Your task to perform on an android device: Search for the best rated running shoes on Nike.com Image 0: 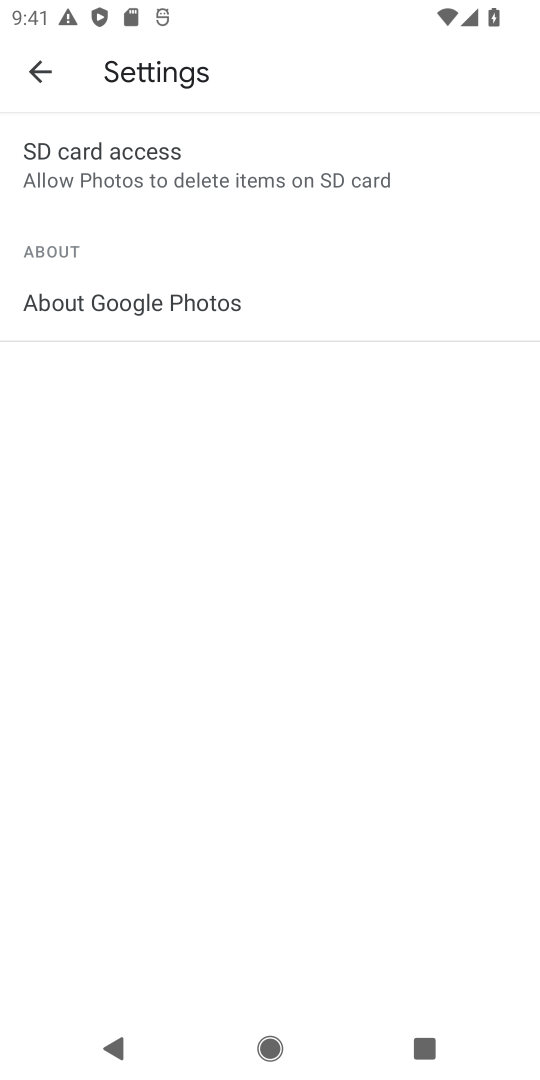
Step 0: press home button
Your task to perform on an android device: Search for the best rated running shoes on Nike.com Image 1: 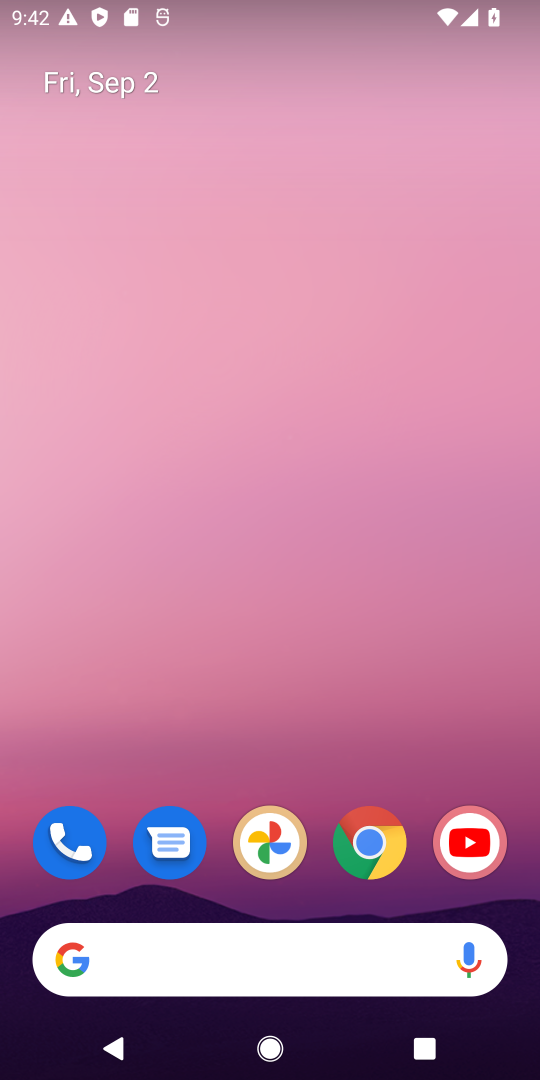
Step 1: drag from (313, 724) to (169, 87)
Your task to perform on an android device: Search for the best rated running shoes on Nike.com Image 2: 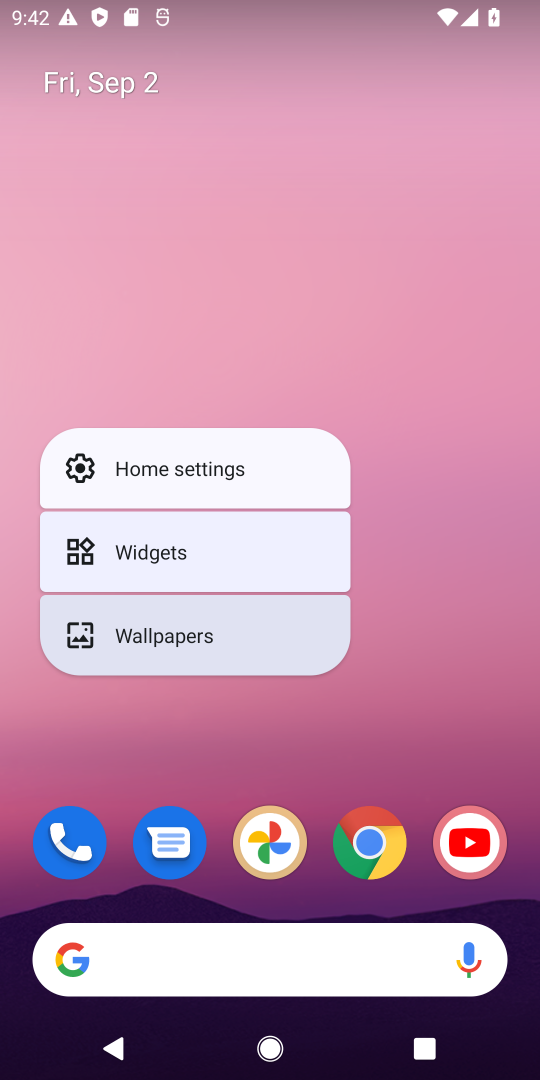
Step 2: click (278, 335)
Your task to perform on an android device: Search for the best rated running shoes on Nike.com Image 3: 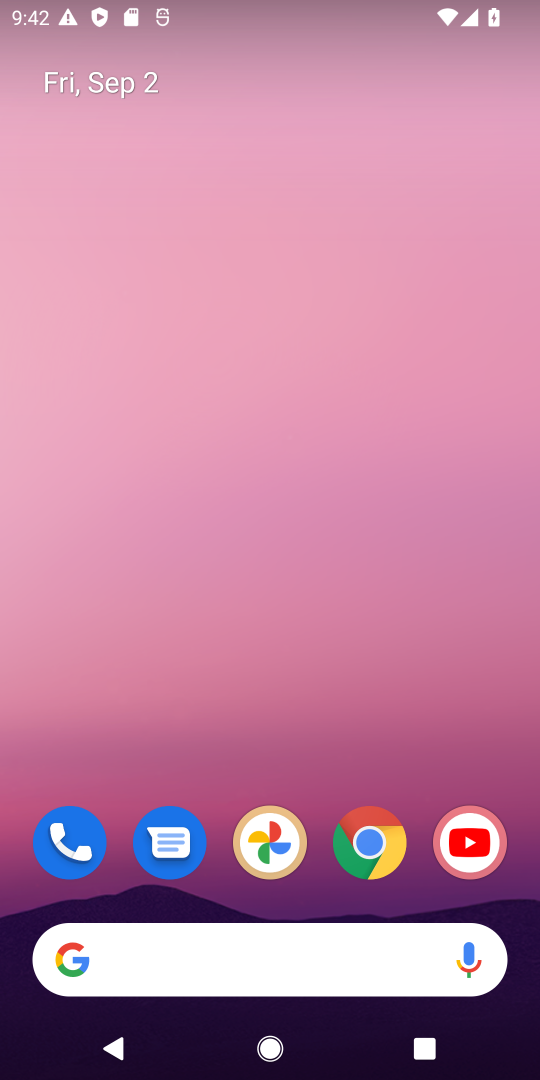
Step 3: drag from (333, 859) to (326, 0)
Your task to perform on an android device: Search for the best rated running shoes on Nike.com Image 4: 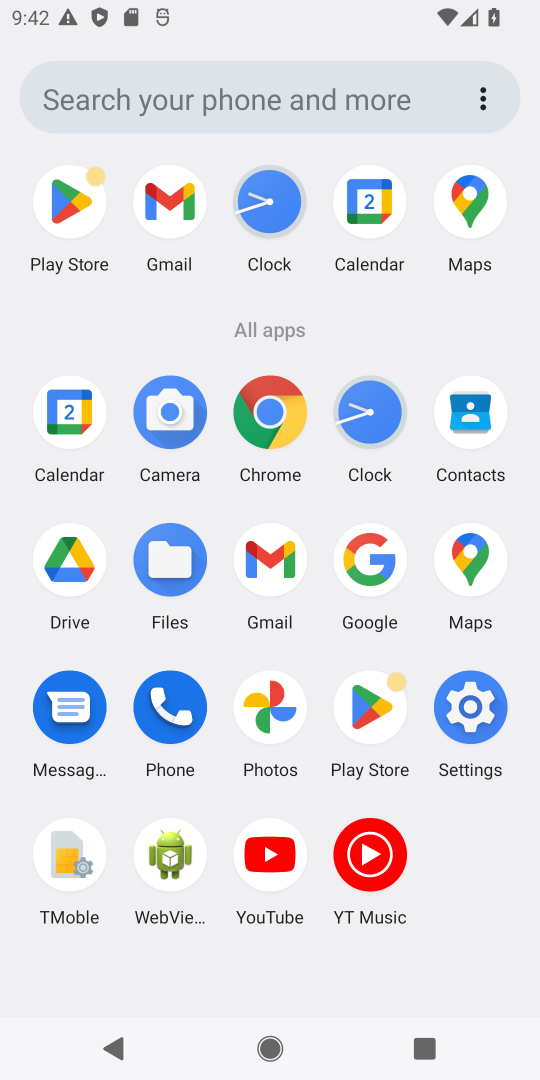
Step 4: click (268, 424)
Your task to perform on an android device: Search for the best rated running shoes on Nike.com Image 5: 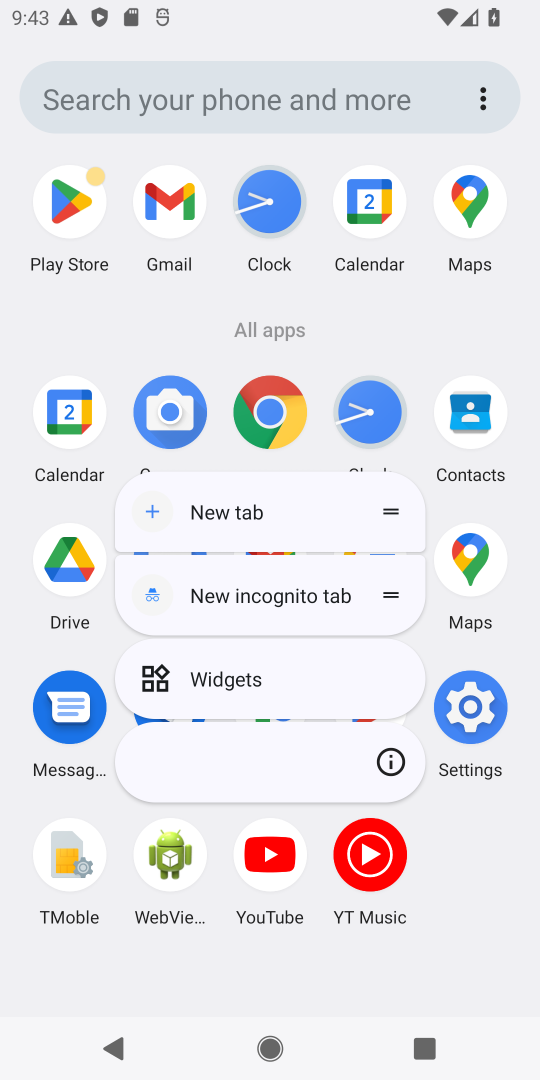
Step 5: click (267, 421)
Your task to perform on an android device: Search for the best rated running shoes on Nike.com Image 6: 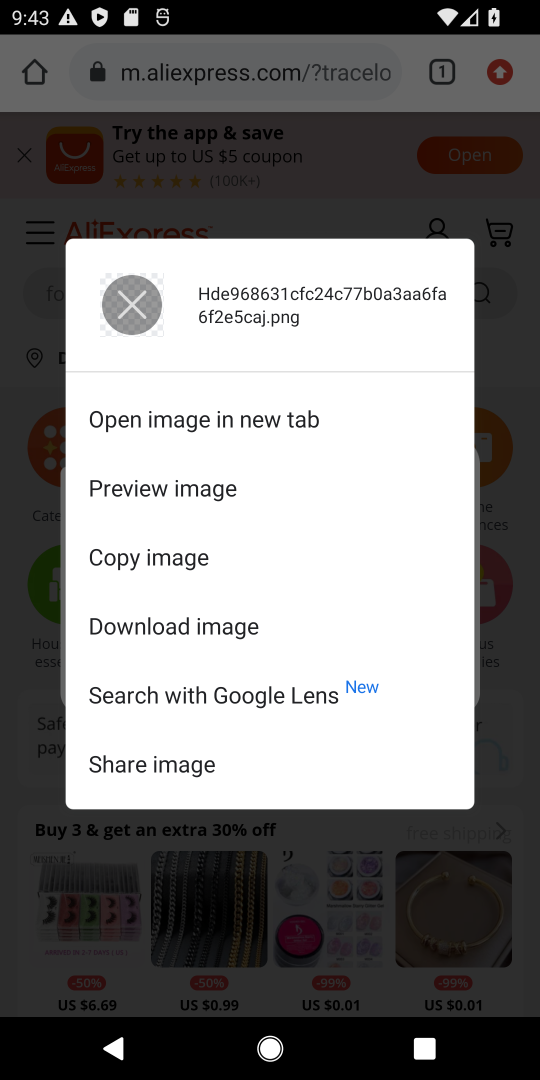
Step 6: click (273, 78)
Your task to perform on an android device: Search for the best rated running shoes on Nike.com Image 7: 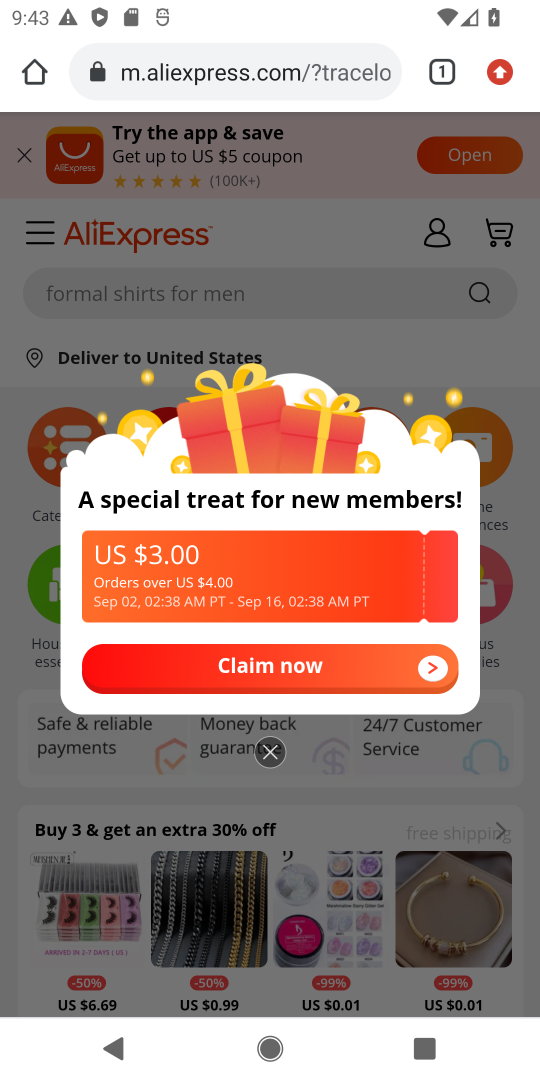
Step 7: click (273, 77)
Your task to perform on an android device: Search for the best rated running shoes on Nike.com Image 8: 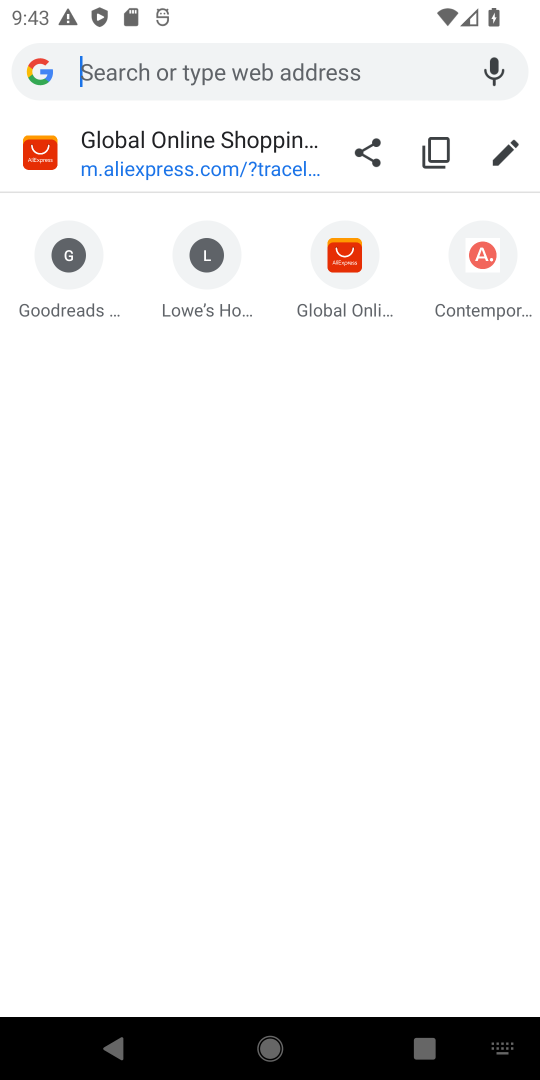
Step 8: type "Nike.com"
Your task to perform on an android device: Search for the best rated running shoes on Nike.com Image 9: 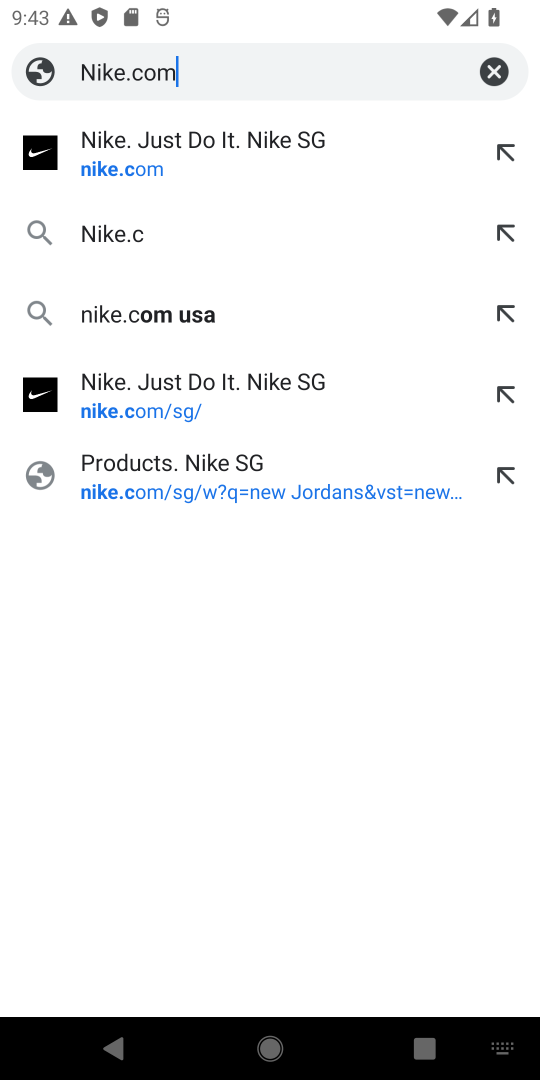
Step 9: press enter
Your task to perform on an android device: Search for the best rated running shoes on Nike.com Image 10: 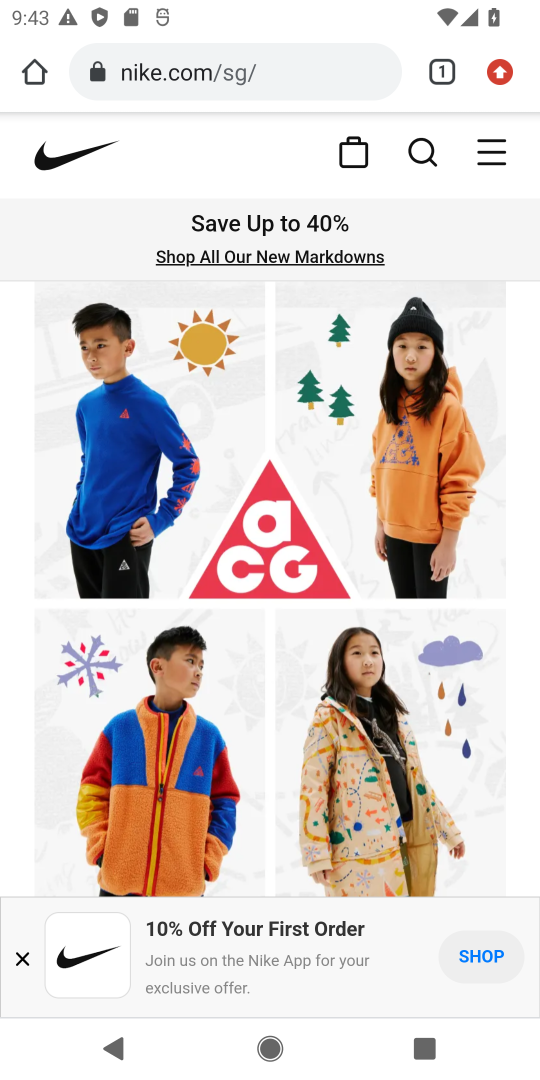
Step 10: click (421, 149)
Your task to perform on an android device: Search for the best rated running shoes on Nike.com Image 11: 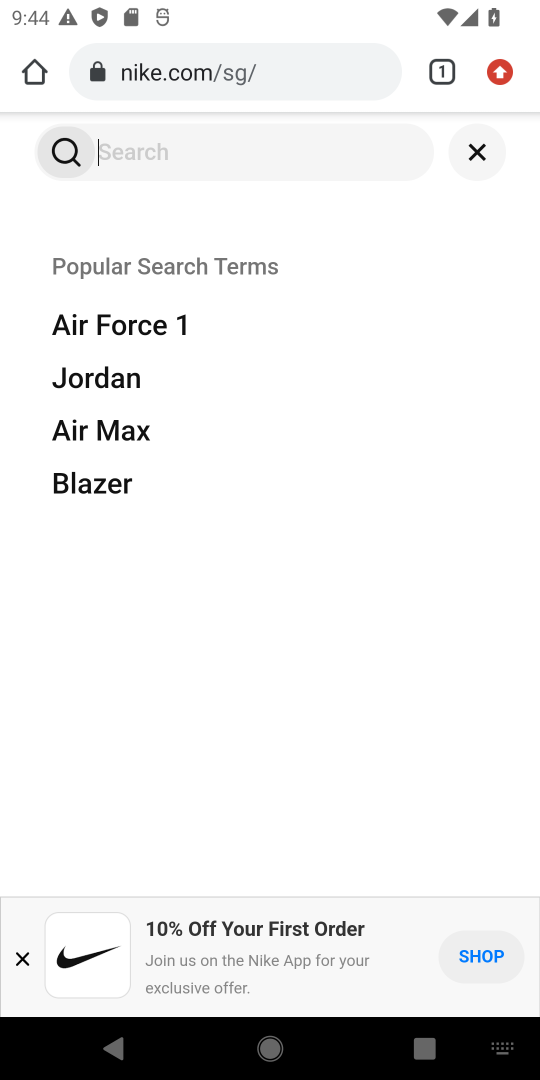
Step 11: type "best rated running shoes "
Your task to perform on an android device: Search for the best rated running shoes on Nike.com Image 12: 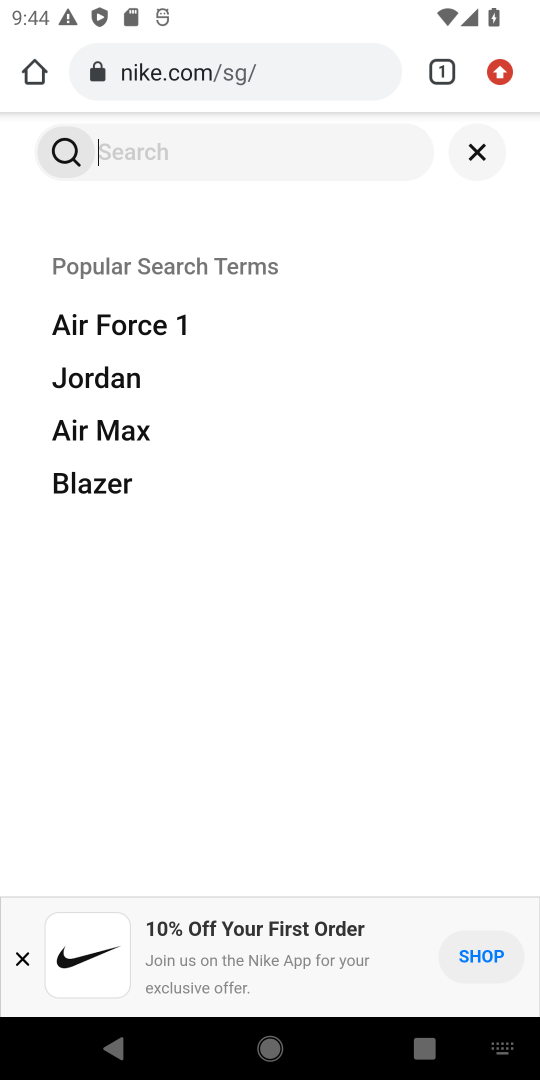
Step 12: press enter
Your task to perform on an android device: Search for the best rated running shoes on Nike.com Image 13: 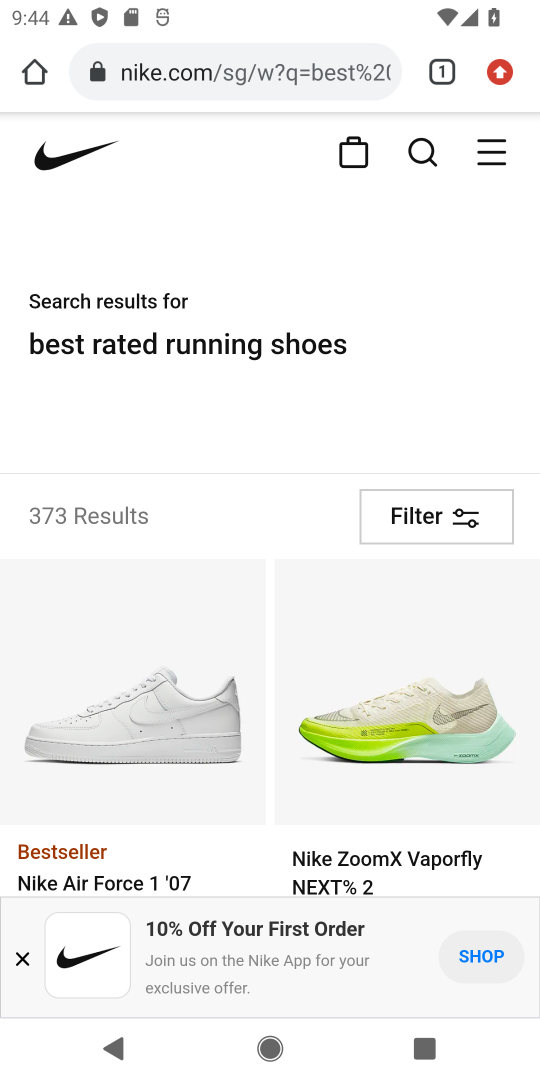
Step 13: task complete